Your task to perform on an android device: When is my next appointment? Image 0: 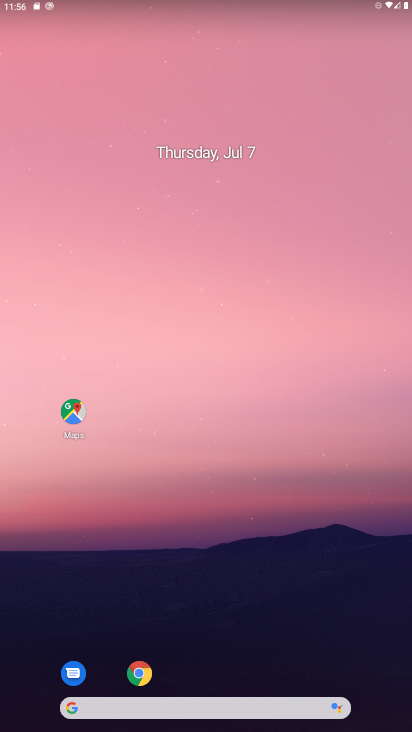
Step 0: drag from (381, 708) to (299, 81)
Your task to perform on an android device: When is my next appointment? Image 1: 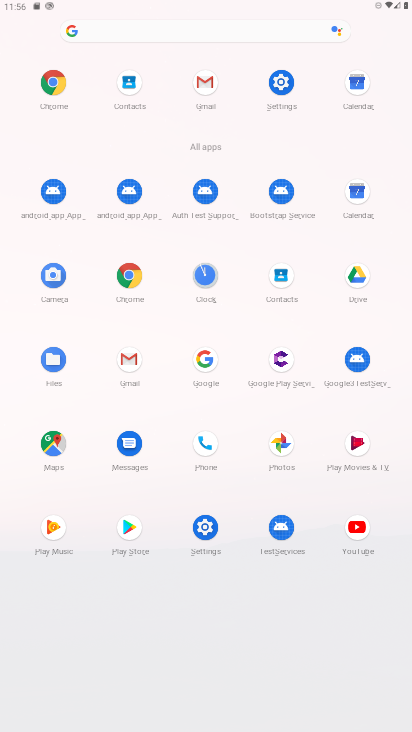
Step 1: click (351, 189)
Your task to perform on an android device: When is my next appointment? Image 2: 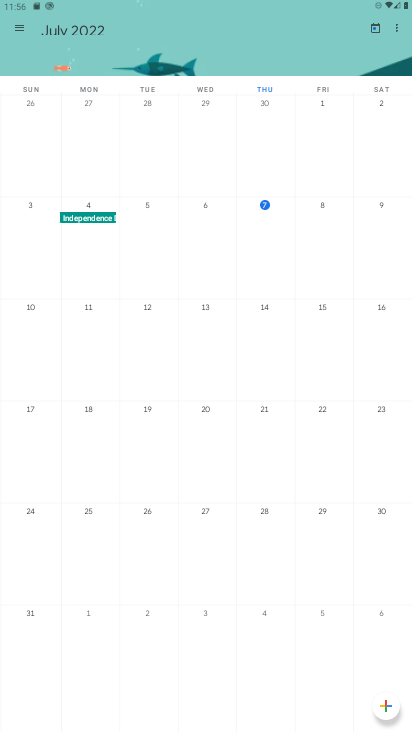
Step 2: click (24, 22)
Your task to perform on an android device: When is my next appointment? Image 3: 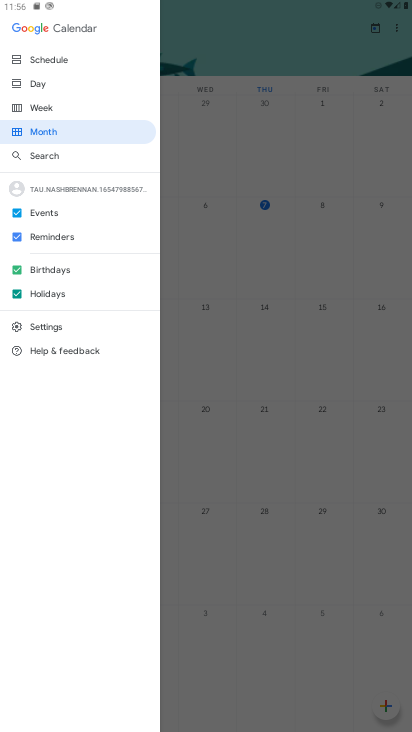
Step 3: click (14, 292)
Your task to perform on an android device: When is my next appointment? Image 4: 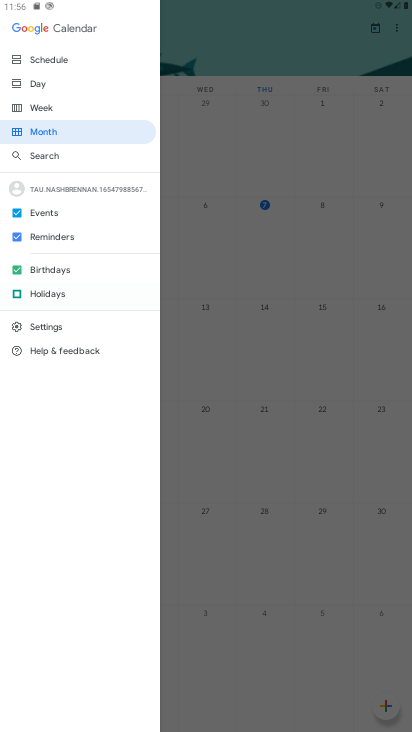
Step 4: click (18, 268)
Your task to perform on an android device: When is my next appointment? Image 5: 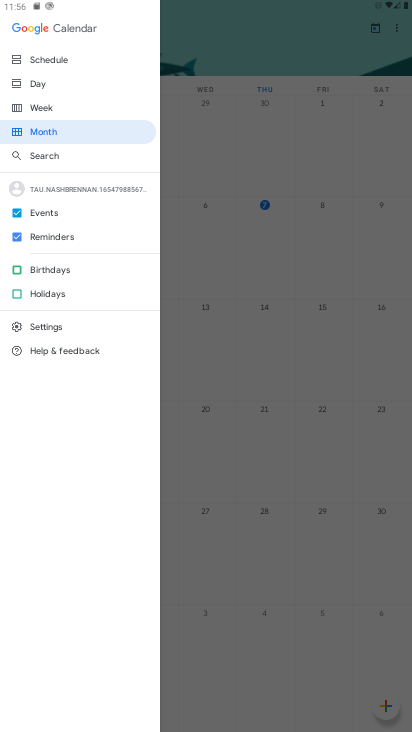
Step 5: click (18, 237)
Your task to perform on an android device: When is my next appointment? Image 6: 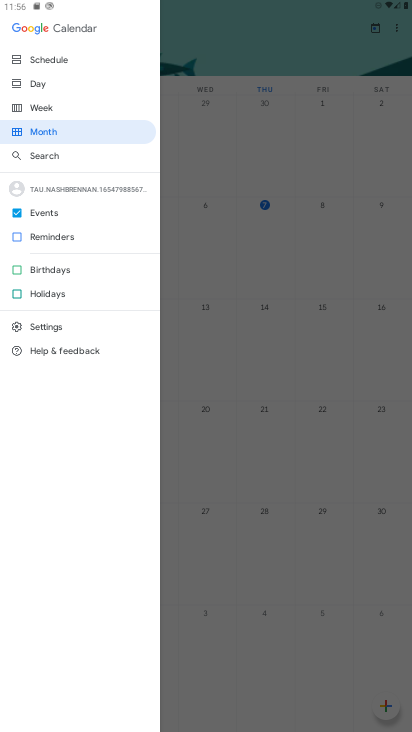
Step 6: click (53, 56)
Your task to perform on an android device: When is my next appointment? Image 7: 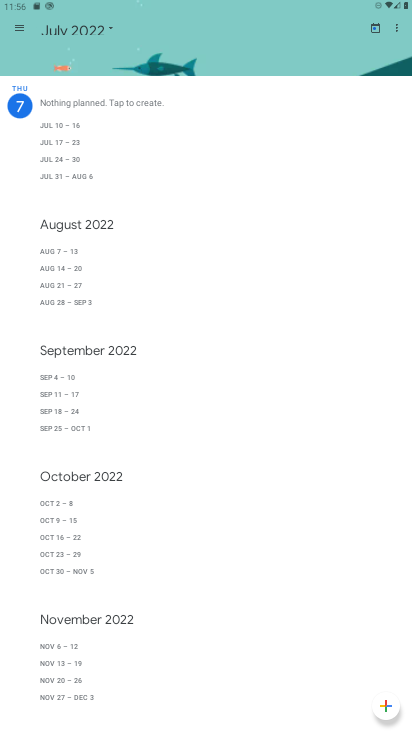
Step 7: task complete